Your task to perform on an android device: Go to Google maps Image 0: 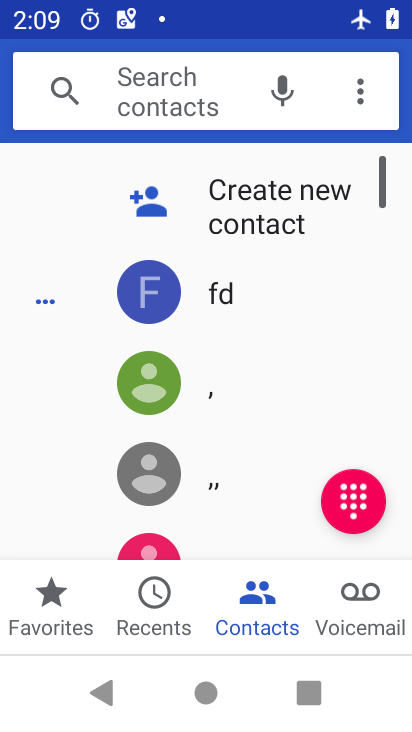
Step 0: press home button
Your task to perform on an android device: Go to Google maps Image 1: 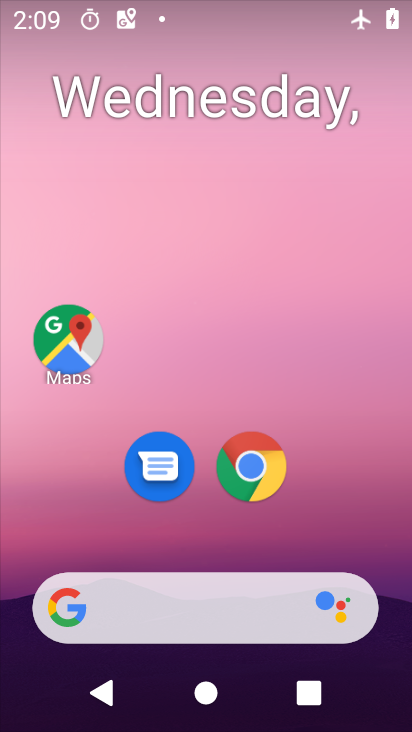
Step 1: click (59, 356)
Your task to perform on an android device: Go to Google maps Image 2: 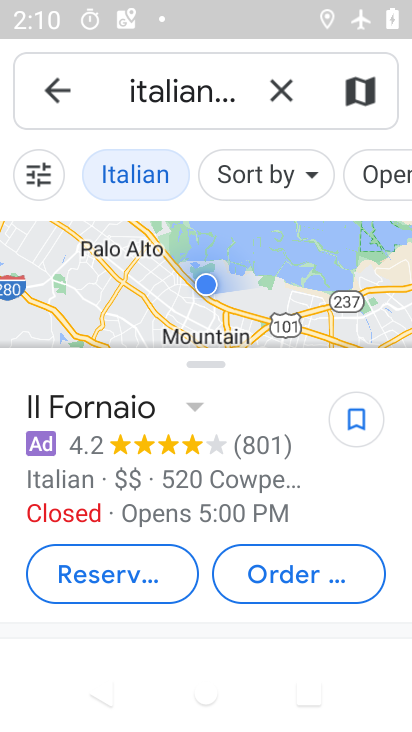
Step 2: task complete